Your task to perform on an android device: Open Google Maps and go to "Timeline" Image 0: 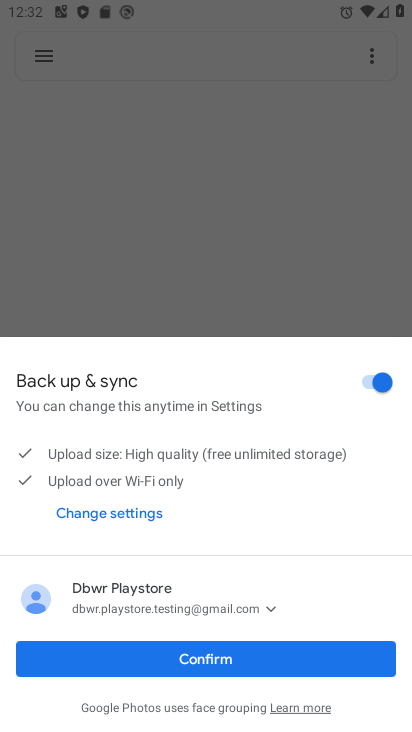
Step 0: press back button
Your task to perform on an android device: Open Google Maps and go to "Timeline" Image 1: 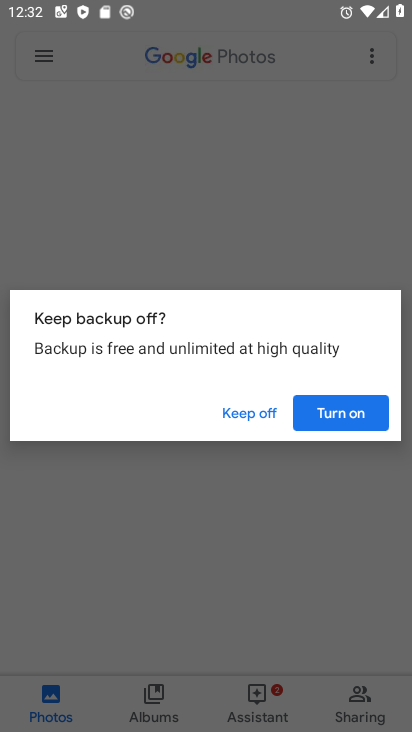
Step 1: click (342, 405)
Your task to perform on an android device: Open Google Maps and go to "Timeline" Image 2: 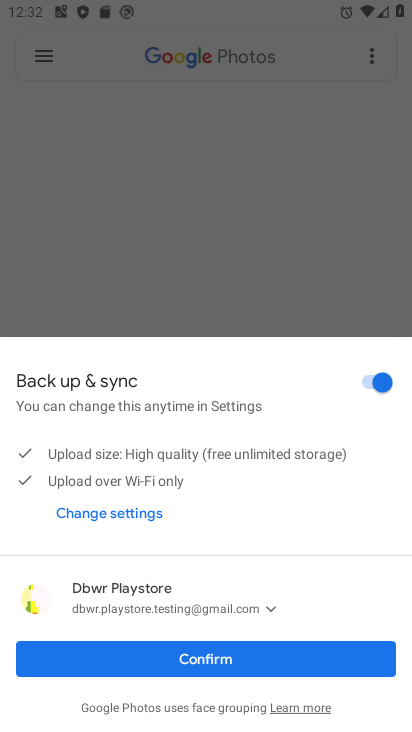
Step 2: click (130, 656)
Your task to perform on an android device: Open Google Maps and go to "Timeline" Image 3: 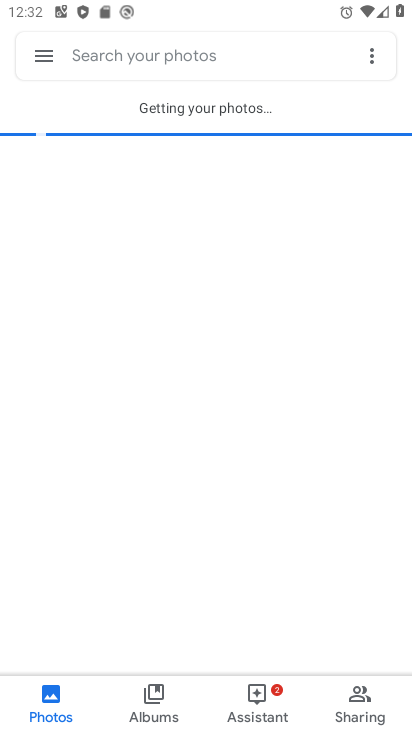
Step 3: click (42, 53)
Your task to perform on an android device: Open Google Maps and go to "Timeline" Image 4: 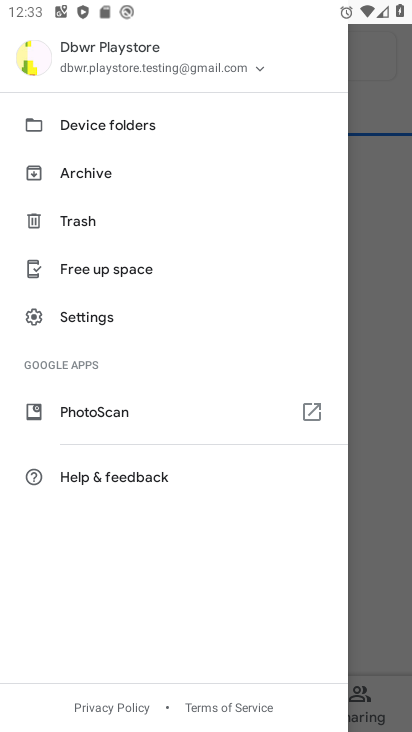
Step 4: drag from (149, 144) to (202, 505)
Your task to perform on an android device: Open Google Maps and go to "Timeline" Image 5: 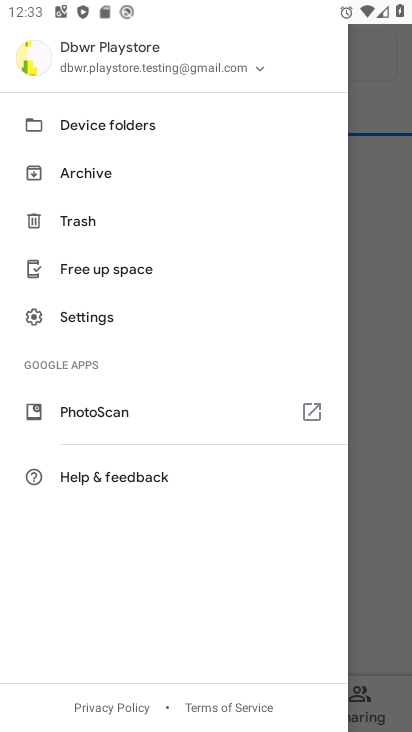
Step 5: click (233, 63)
Your task to perform on an android device: Open Google Maps and go to "Timeline" Image 6: 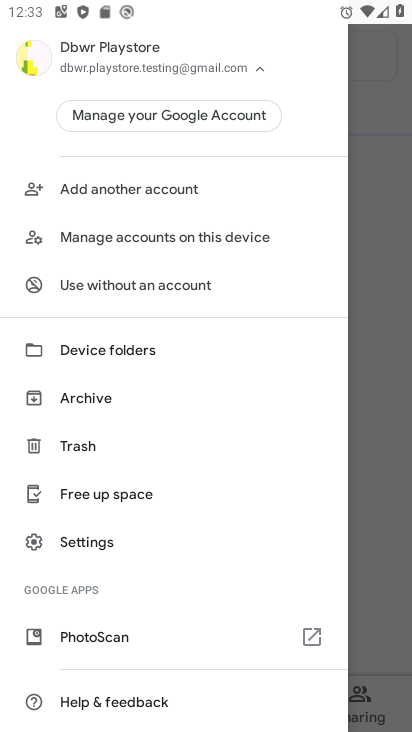
Step 6: click (373, 345)
Your task to perform on an android device: Open Google Maps and go to "Timeline" Image 7: 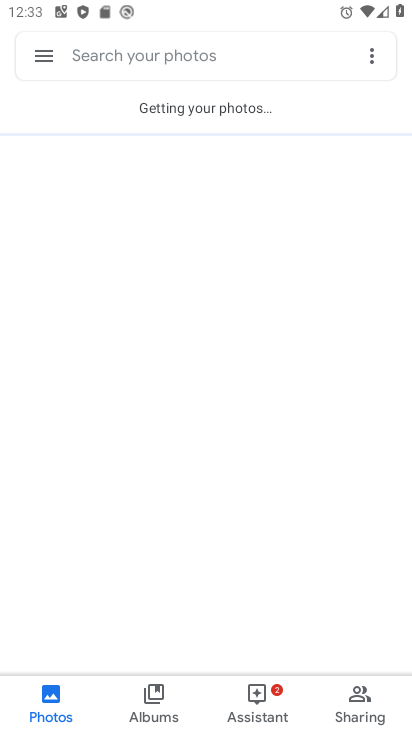
Step 7: click (48, 59)
Your task to perform on an android device: Open Google Maps and go to "Timeline" Image 8: 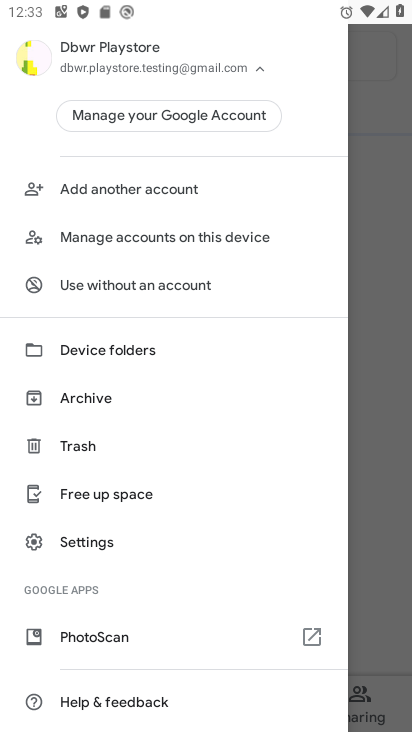
Step 8: click (91, 540)
Your task to perform on an android device: Open Google Maps and go to "Timeline" Image 9: 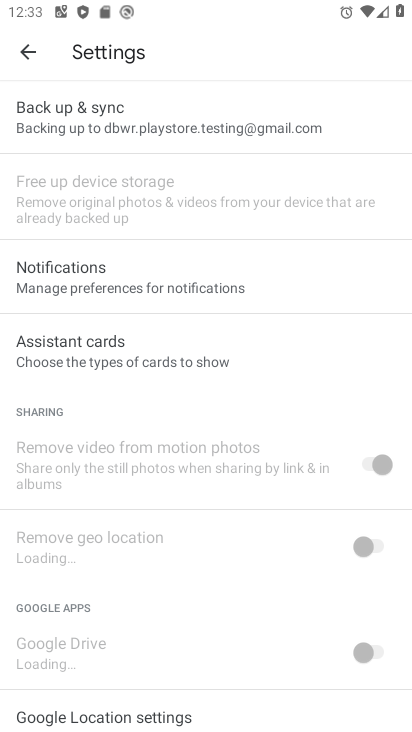
Step 9: click (31, 59)
Your task to perform on an android device: Open Google Maps and go to "Timeline" Image 10: 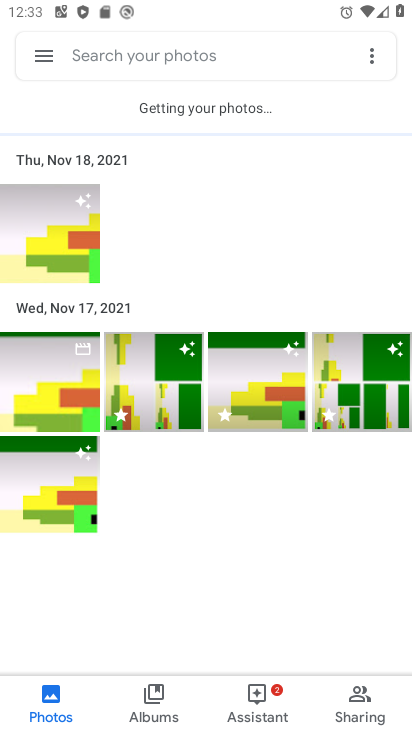
Step 10: press back button
Your task to perform on an android device: Open Google Maps and go to "Timeline" Image 11: 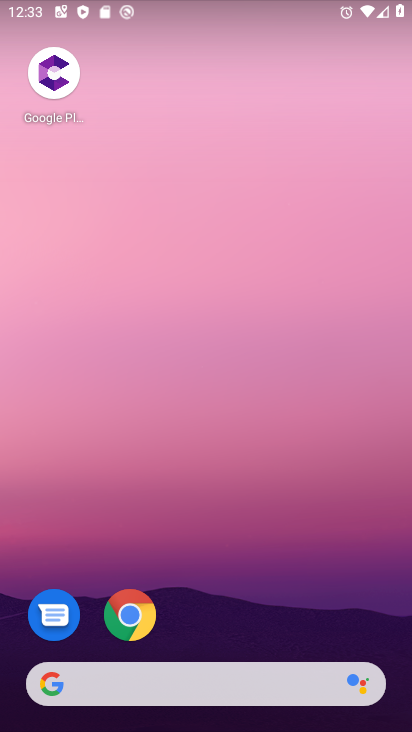
Step 11: drag from (342, 596) to (317, 73)
Your task to perform on an android device: Open Google Maps and go to "Timeline" Image 12: 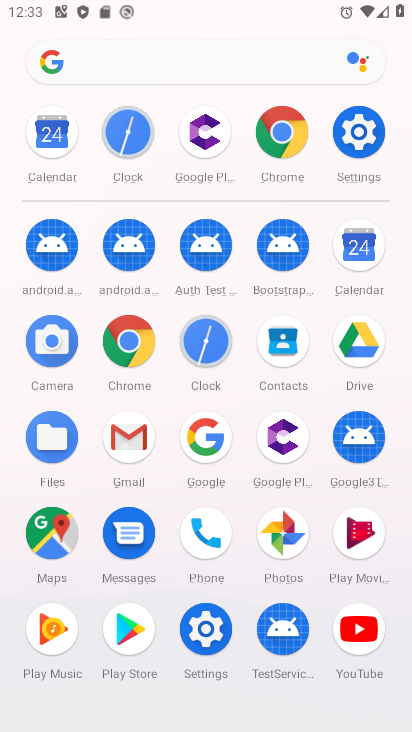
Step 12: click (54, 524)
Your task to perform on an android device: Open Google Maps and go to "Timeline" Image 13: 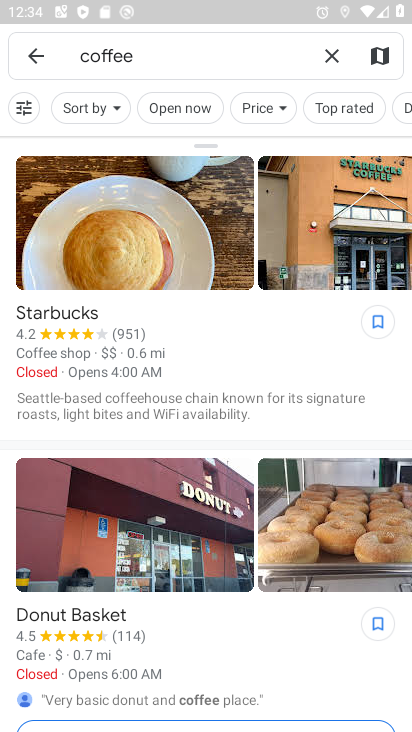
Step 13: click (34, 58)
Your task to perform on an android device: Open Google Maps and go to "Timeline" Image 14: 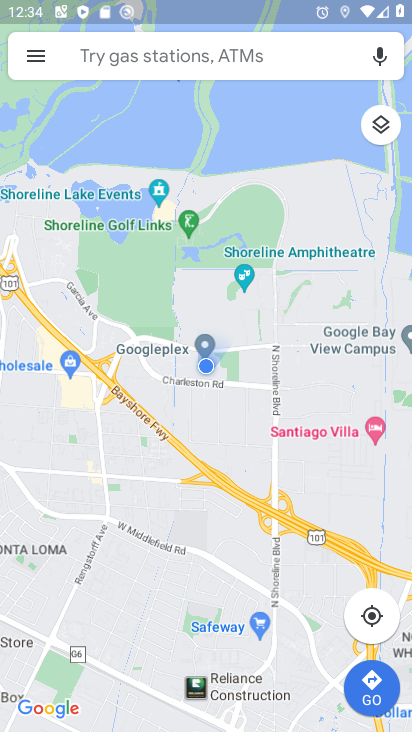
Step 14: click (37, 59)
Your task to perform on an android device: Open Google Maps and go to "Timeline" Image 15: 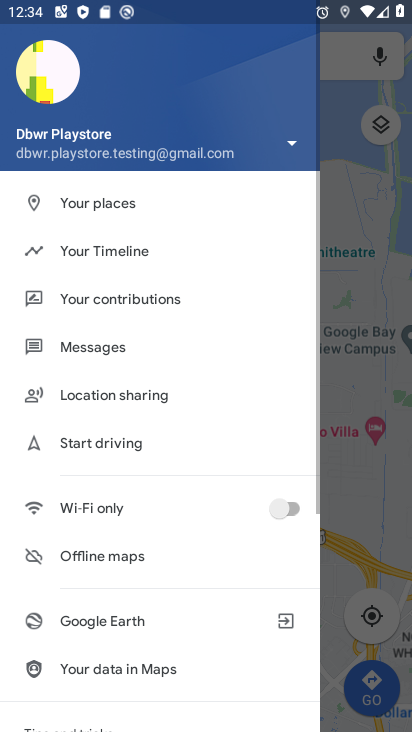
Step 15: click (133, 244)
Your task to perform on an android device: Open Google Maps and go to "Timeline" Image 16: 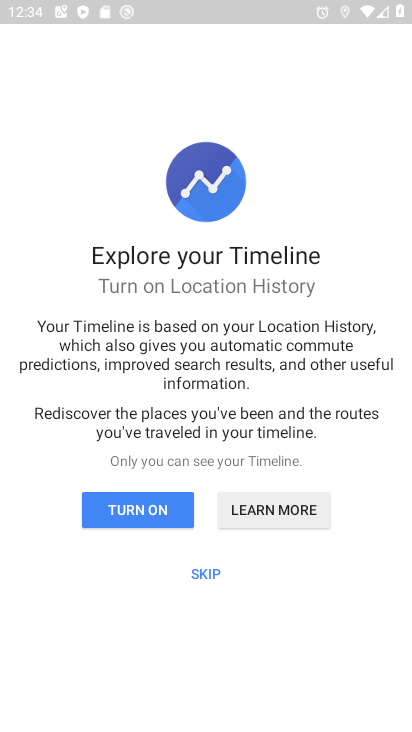
Step 16: click (135, 516)
Your task to perform on an android device: Open Google Maps and go to "Timeline" Image 17: 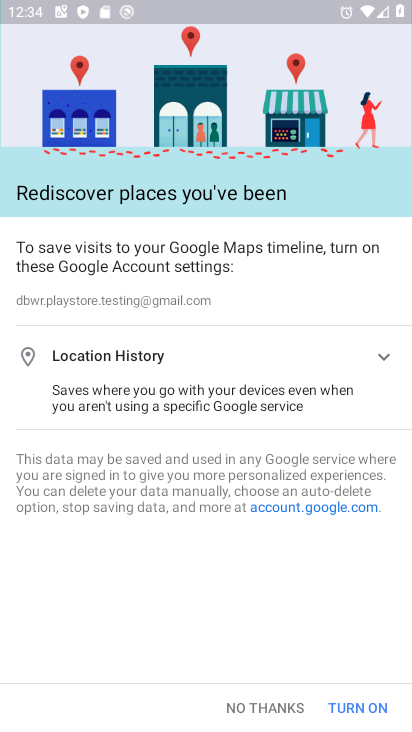
Step 17: click (374, 708)
Your task to perform on an android device: Open Google Maps and go to "Timeline" Image 18: 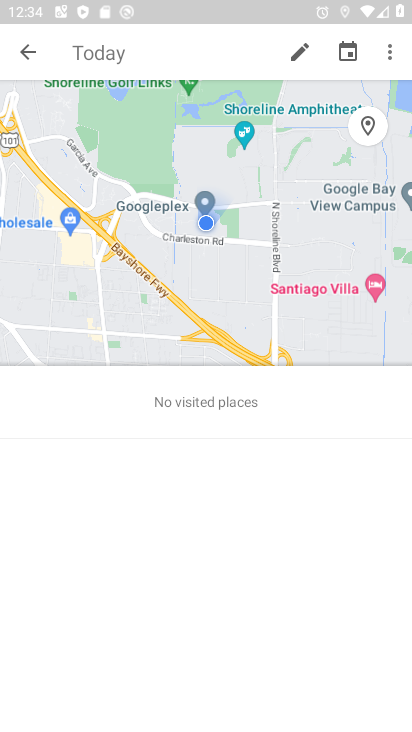
Step 18: task complete